Your task to perform on an android device: Search for the new Nike Air Max 270 on Nike.com Image 0: 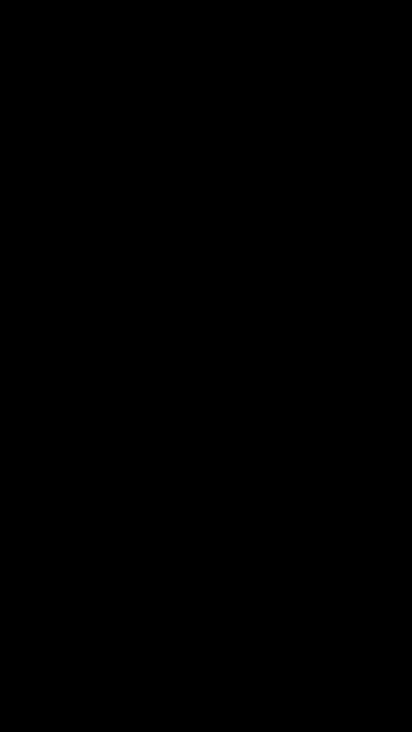
Step 0: press home button
Your task to perform on an android device: Search for the new Nike Air Max 270 on Nike.com Image 1: 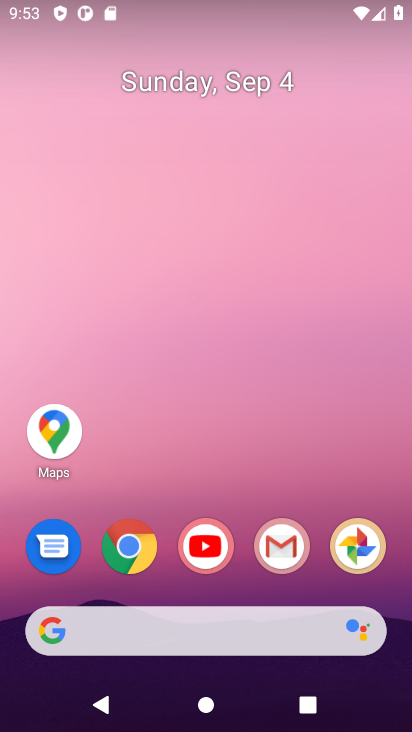
Step 1: click (120, 547)
Your task to perform on an android device: Search for the new Nike Air Max 270 on Nike.com Image 2: 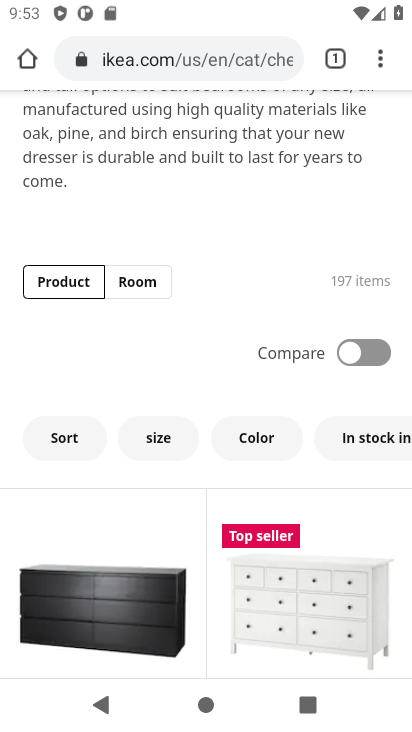
Step 2: click (228, 68)
Your task to perform on an android device: Search for the new Nike Air Max 270 on Nike.com Image 3: 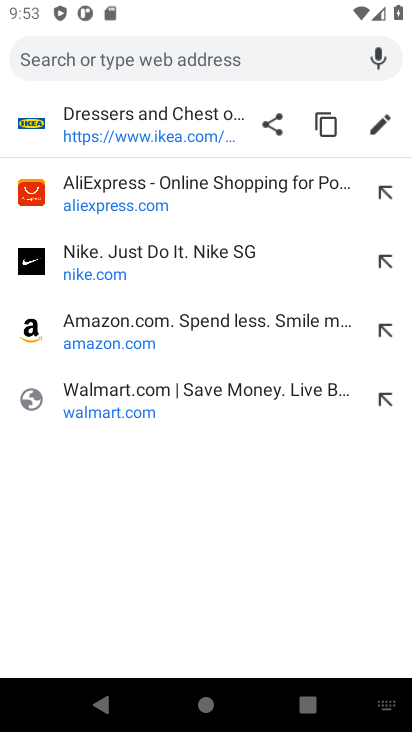
Step 3: type "Nike.com"
Your task to perform on an android device: Search for the new Nike Air Max 270 on Nike.com Image 4: 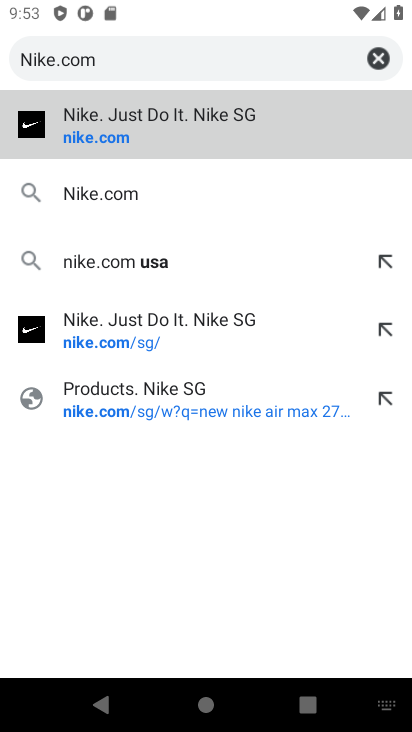
Step 4: click (93, 194)
Your task to perform on an android device: Search for the new Nike Air Max 270 on Nike.com Image 5: 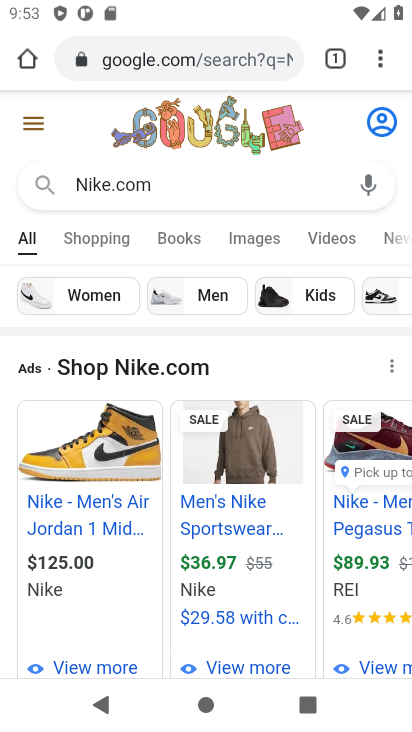
Step 5: drag from (204, 532) to (189, 137)
Your task to perform on an android device: Search for the new Nike Air Max 270 on Nike.com Image 6: 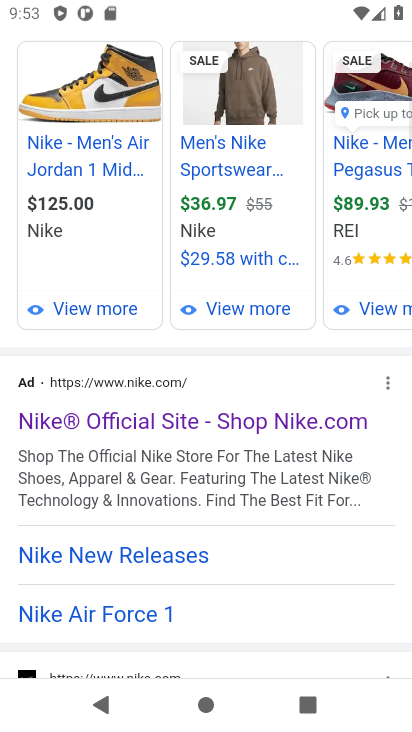
Step 6: drag from (146, 528) to (154, 110)
Your task to perform on an android device: Search for the new Nike Air Max 270 on Nike.com Image 7: 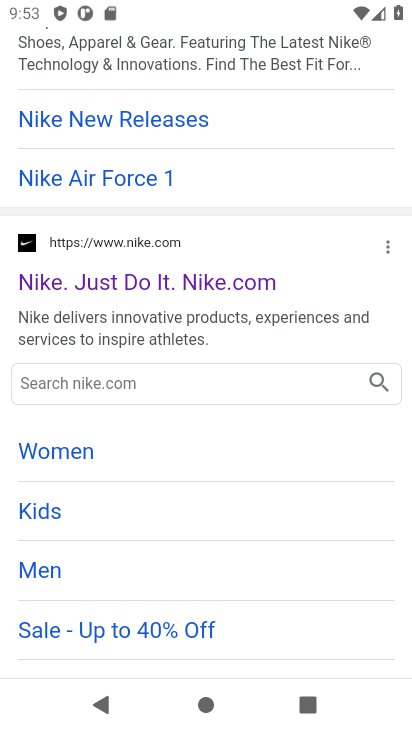
Step 7: click (43, 286)
Your task to perform on an android device: Search for the new Nike Air Max 270 on Nike.com Image 8: 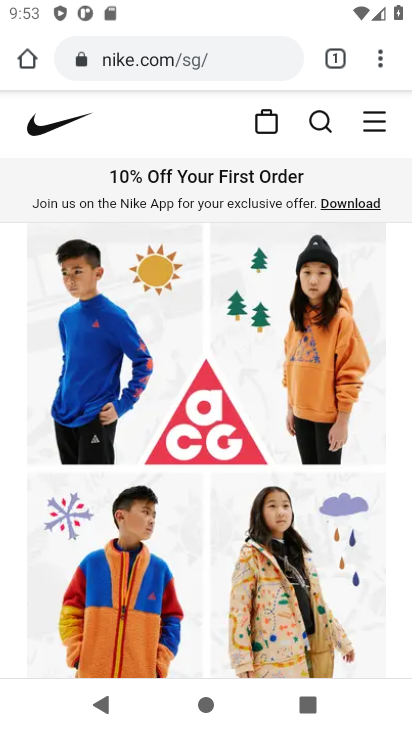
Step 8: click (323, 129)
Your task to perform on an android device: Search for the new Nike Air Max 270 on Nike.com Image 9: 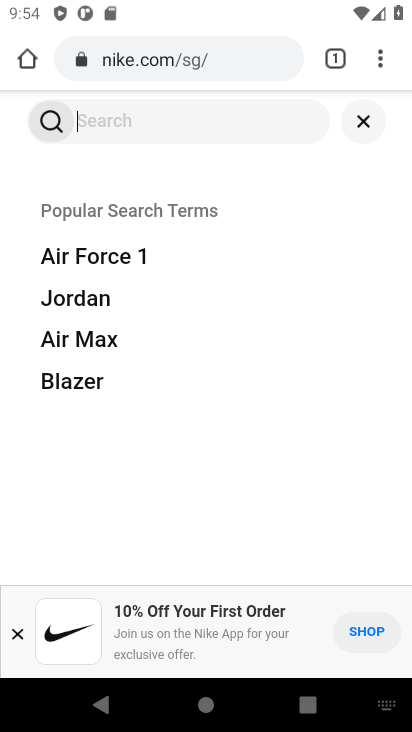
Step 9: type "new Nike Air Max 270"
Your task to perform on an android device: Search for the new Nike Air Max 270 on Nike.com Image 10: 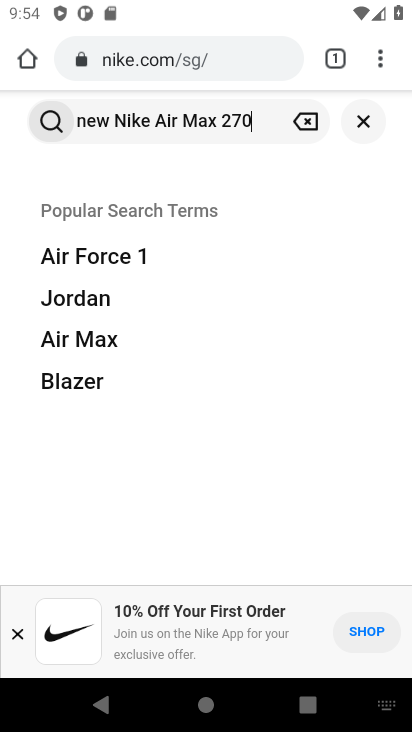
Step 10: click (53, 117)
Your task to perform on an android device: Search for the new Nike Air Max 270 on Nike.com Image 11: 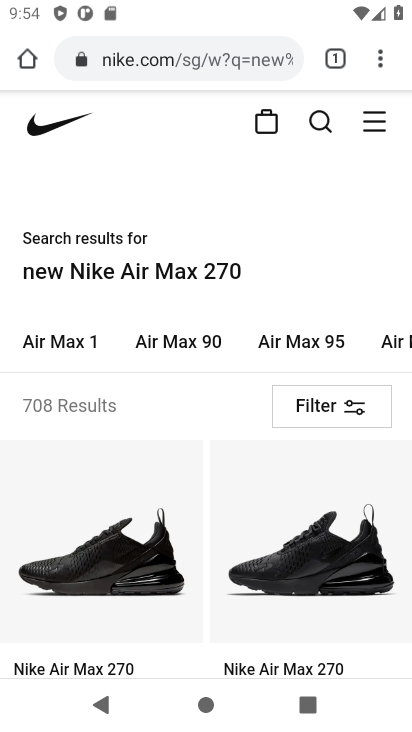
Step 11: task complete